Your task to perform on an android device: change the clock style Image 0: 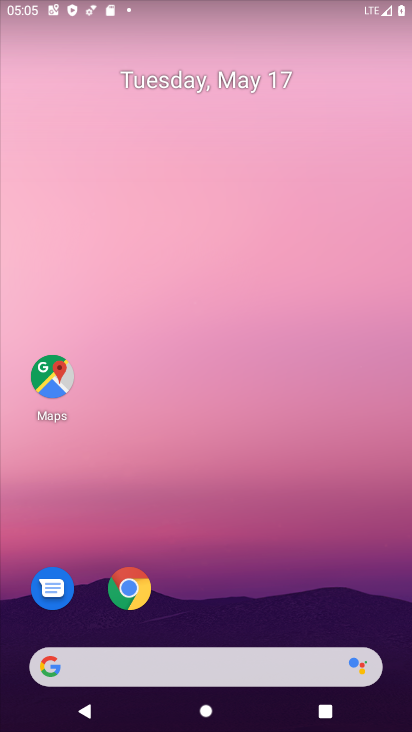
Step 0: drag from (258, 590) to (201, 172)
Your task to perform on an android device: change the clock style Image 1: 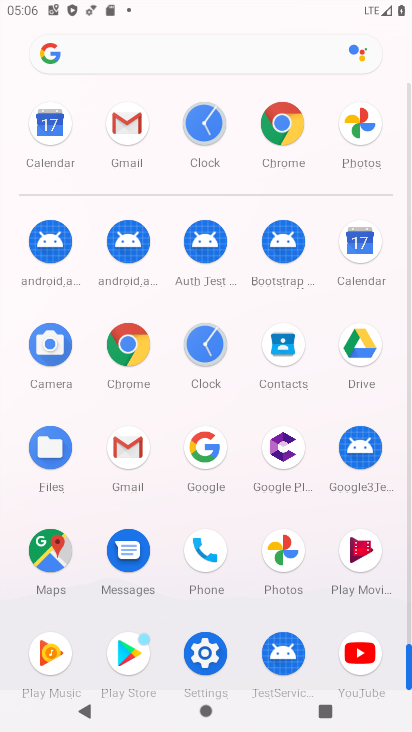
Step 1: click (204, 122)
Your task to perform on an android device: change the clock style Image 2: 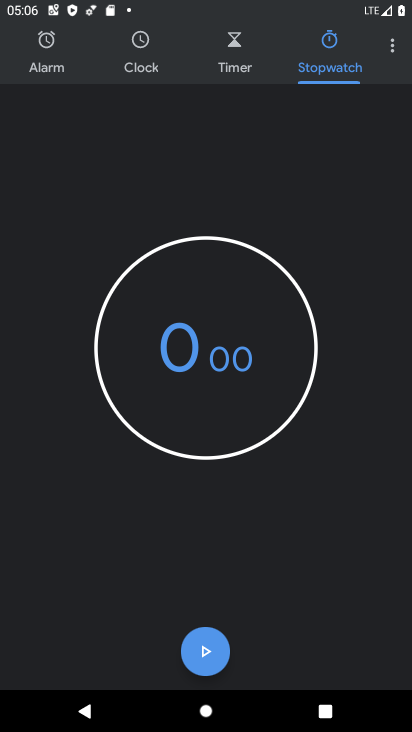
Step 2: click (394, 47)
Your task to perform on an android device: change the clock style Image 3: 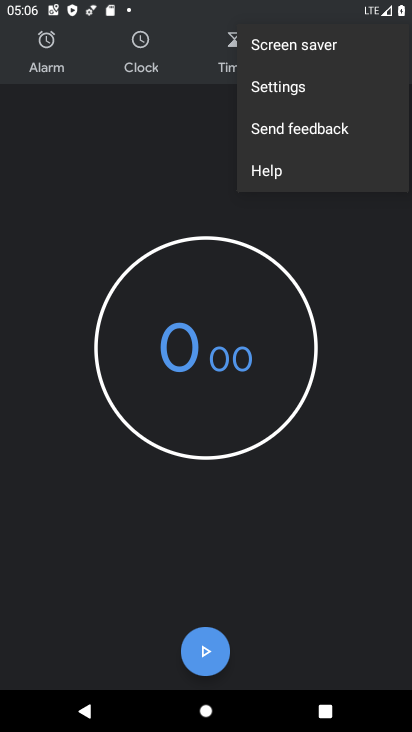
Step 3: click (290, 89)
Your task to perform on an android device: change the clock style Image 4: 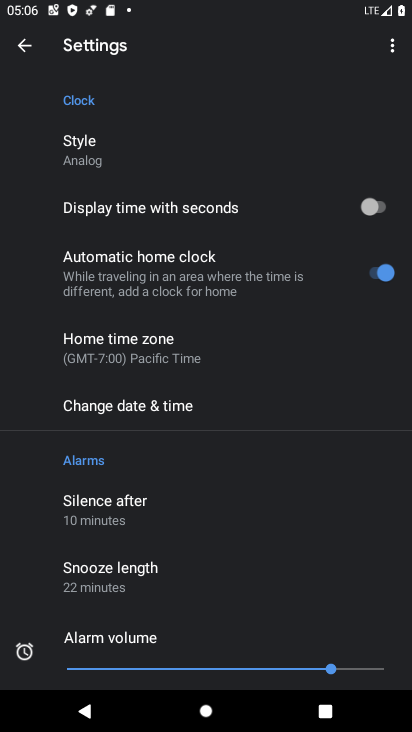
Step 4: click (102, 160)
Your task to perform on an android device: change the clock style Image 5: 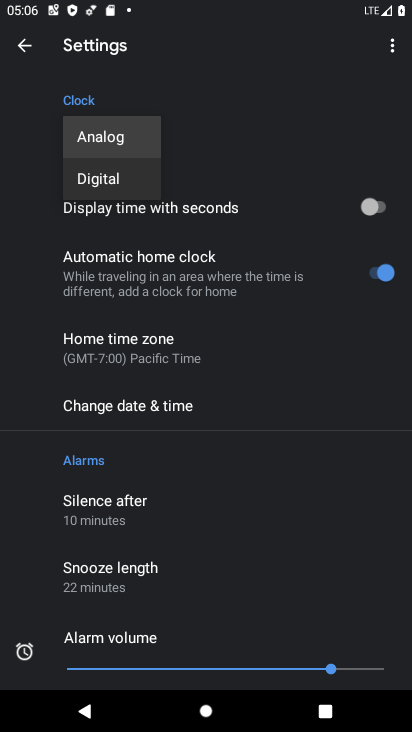
Step 5: click (109, 181)
Your task to perform on an android device: change the clock style Image 6: 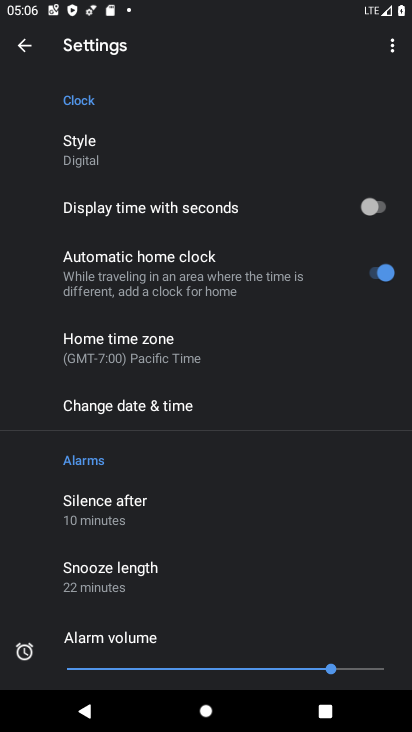
Step 6: task complete